Your task to perform on an android device: find snoozed emails in the gmail app Image 0: 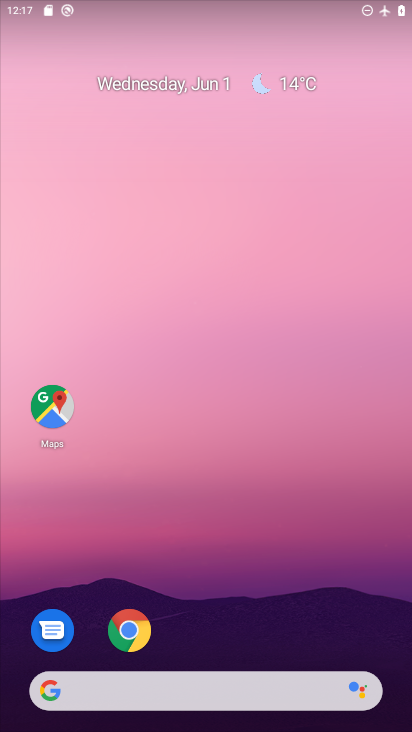
Step 0: drag from (294, 575) to (259, 180)
Your task to perform on an android device: find snoozed emails in the gmail app Image 1: 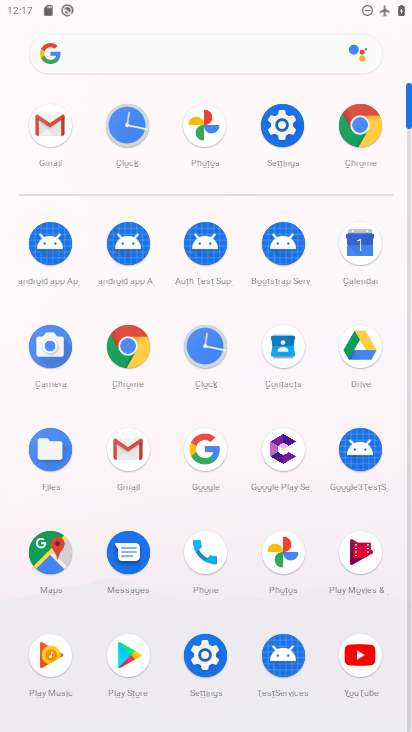
Step 1: click (50, 132)
Your task to perform on an android device: find snoozed emails in the gmail app Image 2: 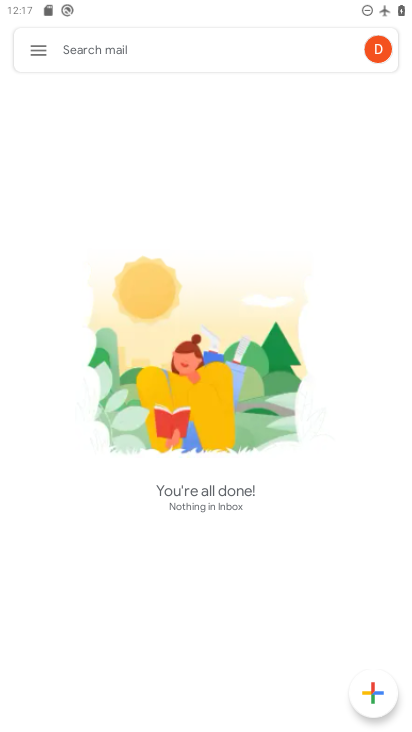
Step 2: click (34, 50)
Your task to perform on an android device: find snoozed emails in the gmail app Image 3: 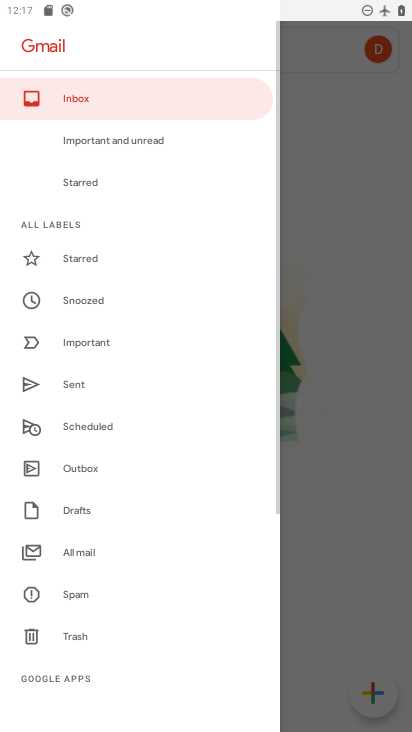
Step 3: click (99, 299)
Your task to perform on an android device: find snoozed emails in the gmail app Image 4: 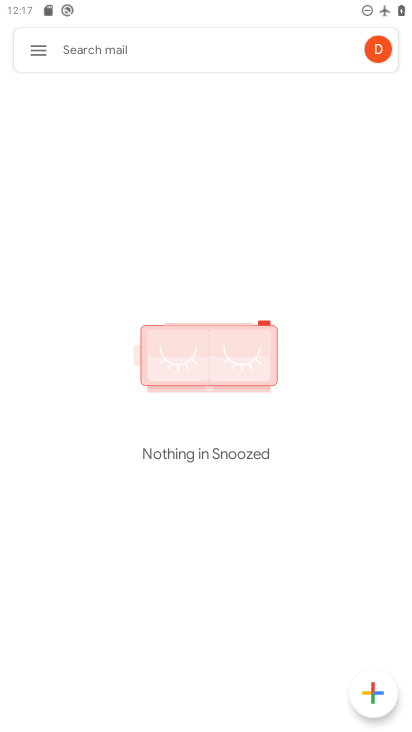
Step 4: task complete